Your task to perform on an android device: open app "Firefox Browser" Image 0: 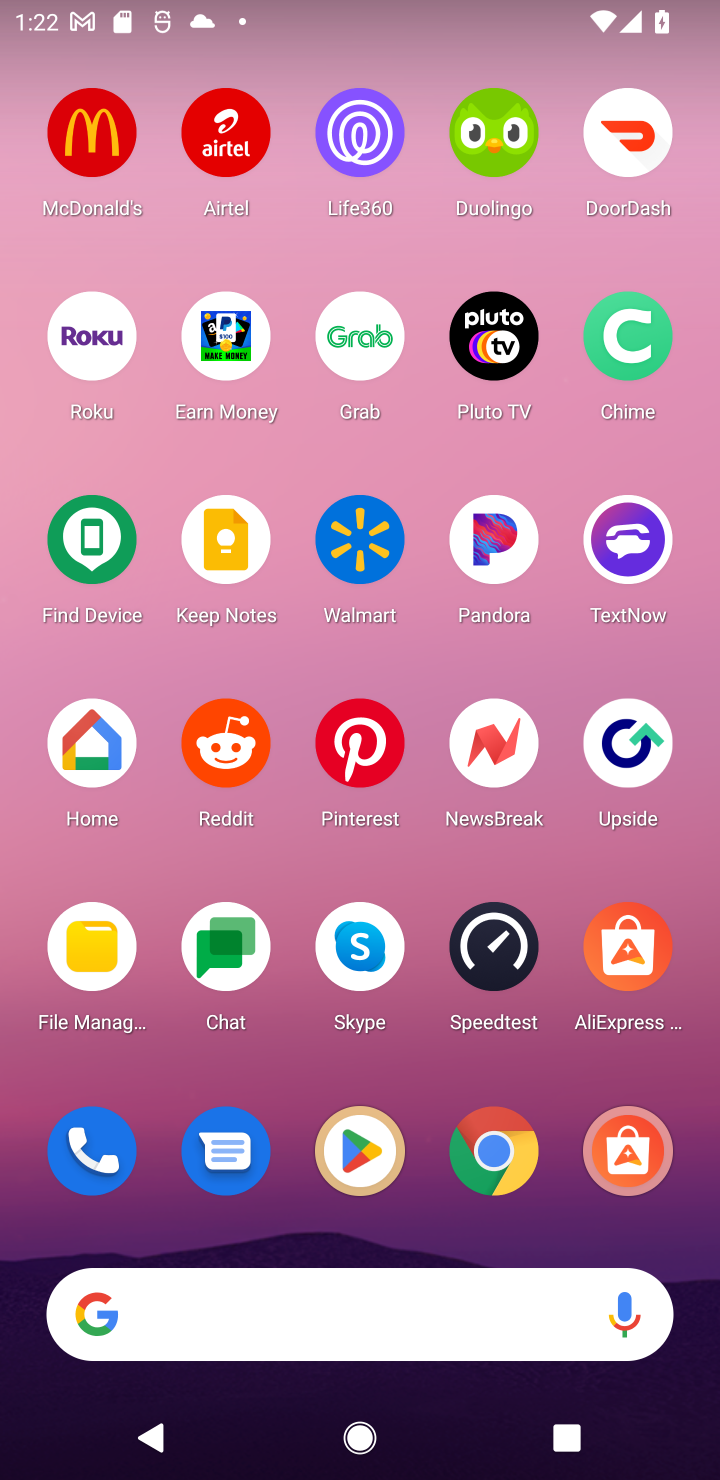
Step 0: click (354, 1162)
Your task to perform on an android device: open app "Firefox Browser" Image 1: 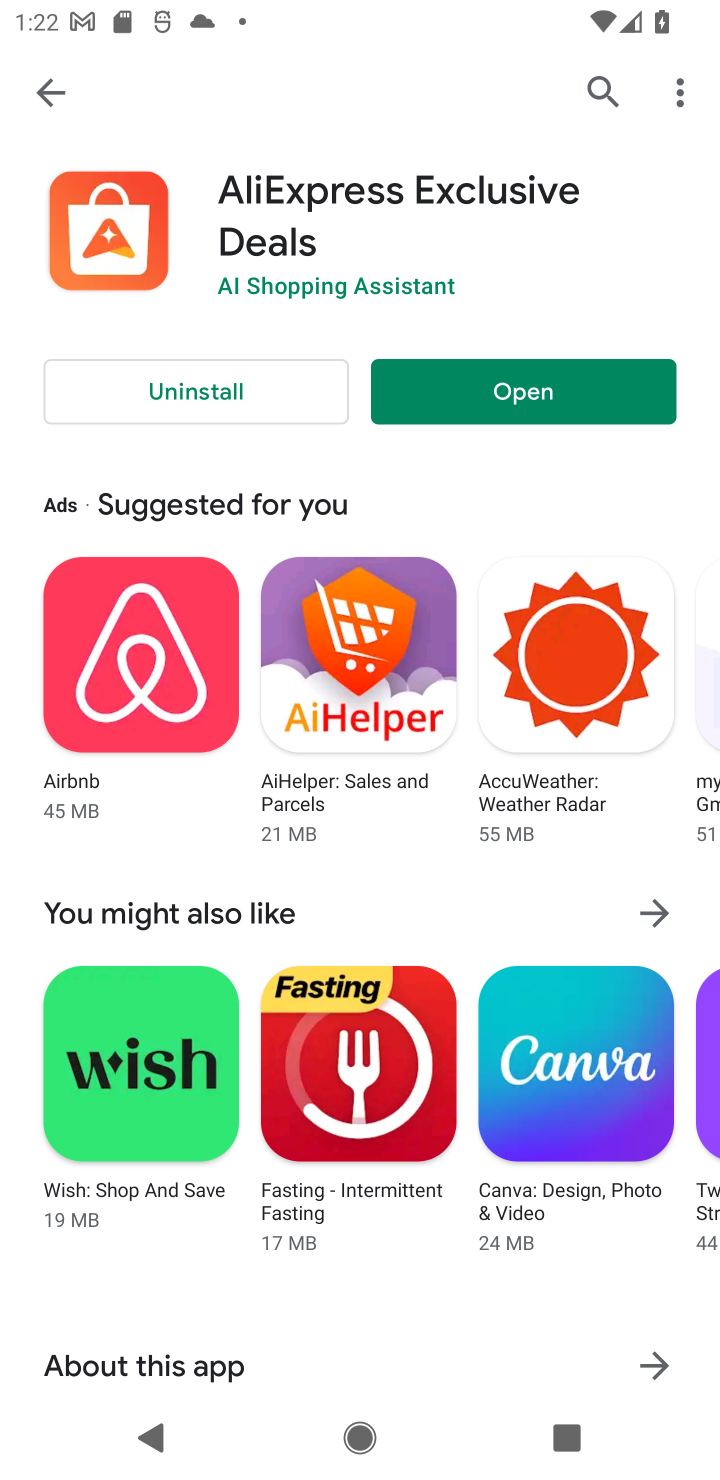
Step 1: press home button
Your task to perform on an android device: open app "Firefox Browser" Image 2: 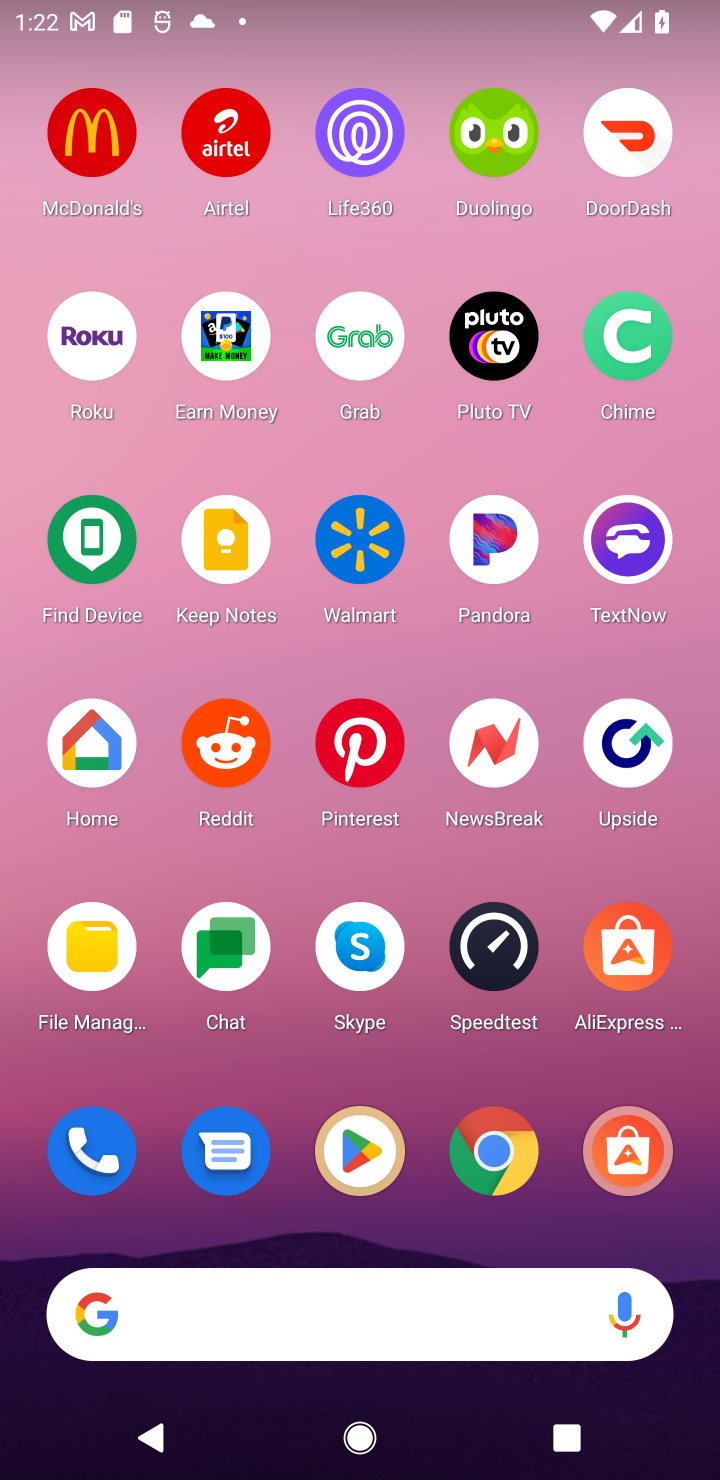
Step 2: click (352, 1160)
Your task to perform on an android device: open app "Firefox Browser" Image 3: 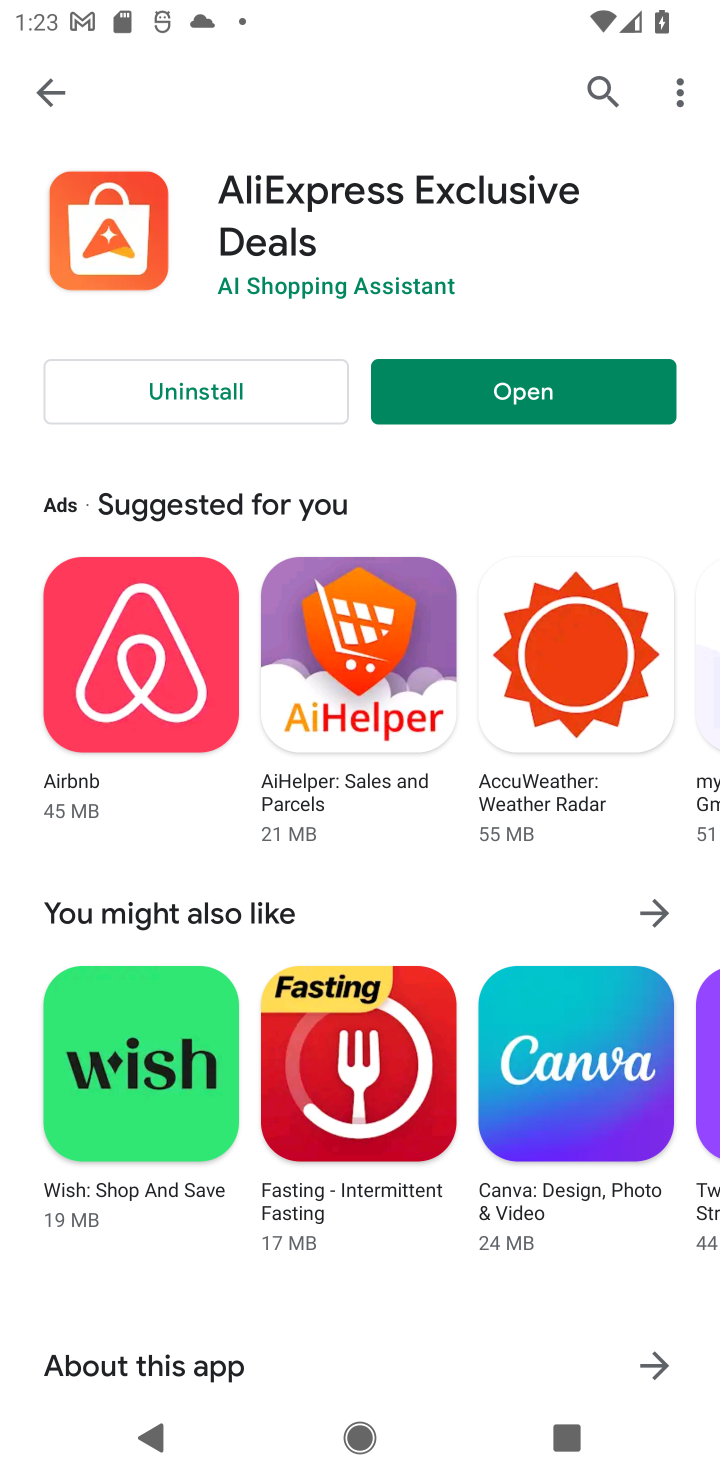
Step 3: click (49, 91)
Your task to perform on an android device: open app "Firefox Browser" Image 4: 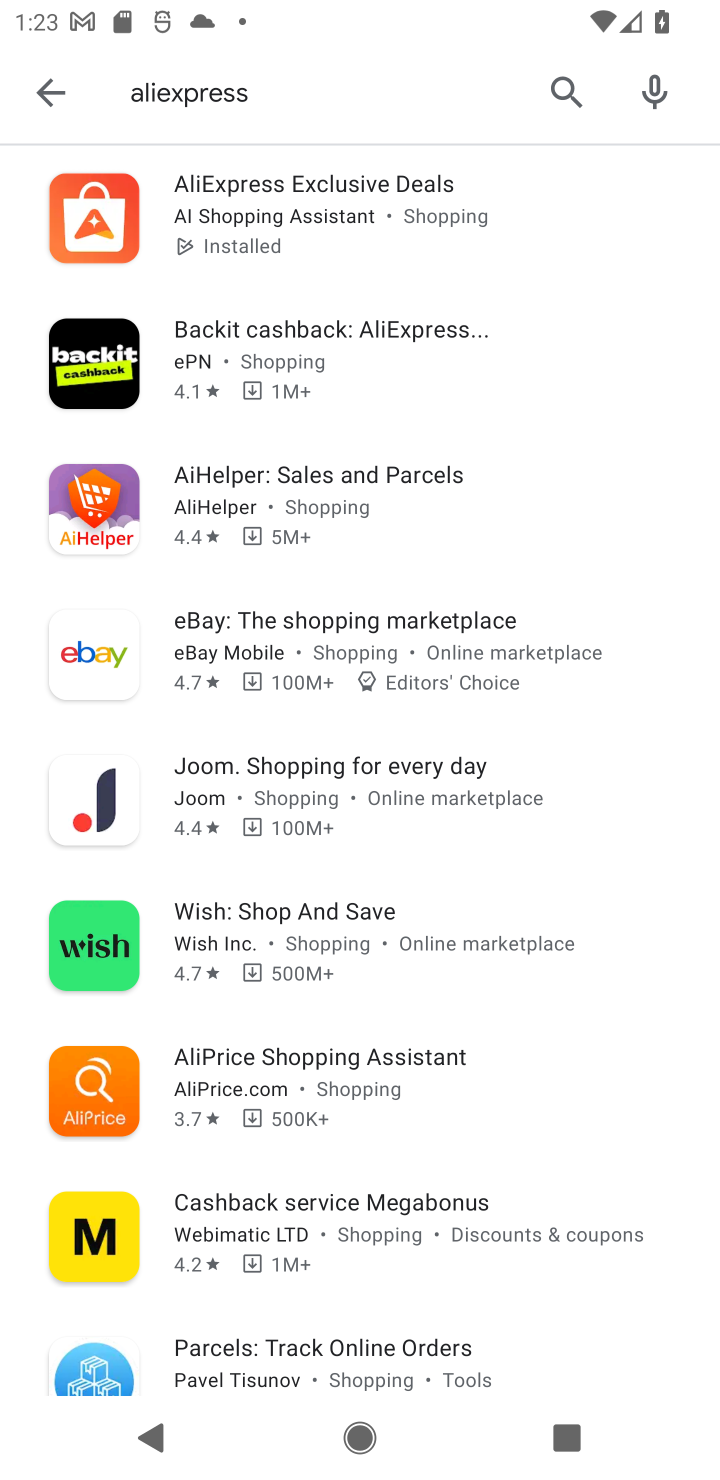
Step 4: click (34, 104)
Your task to perform on an android device: open app "Firefox Browser" Image 5: 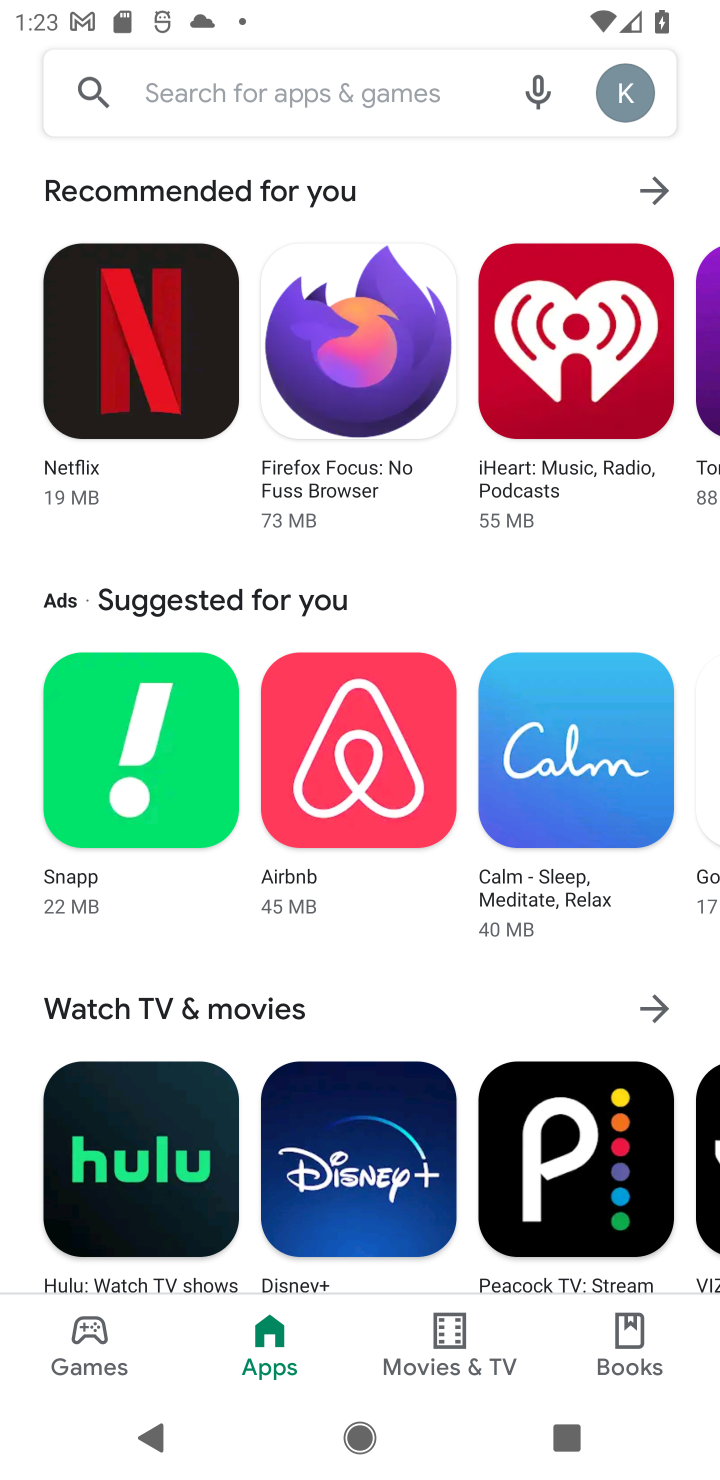
Step 5: click (301, 118)
Your task to perform on an android device: open app "Firefox Browser" Image 6: 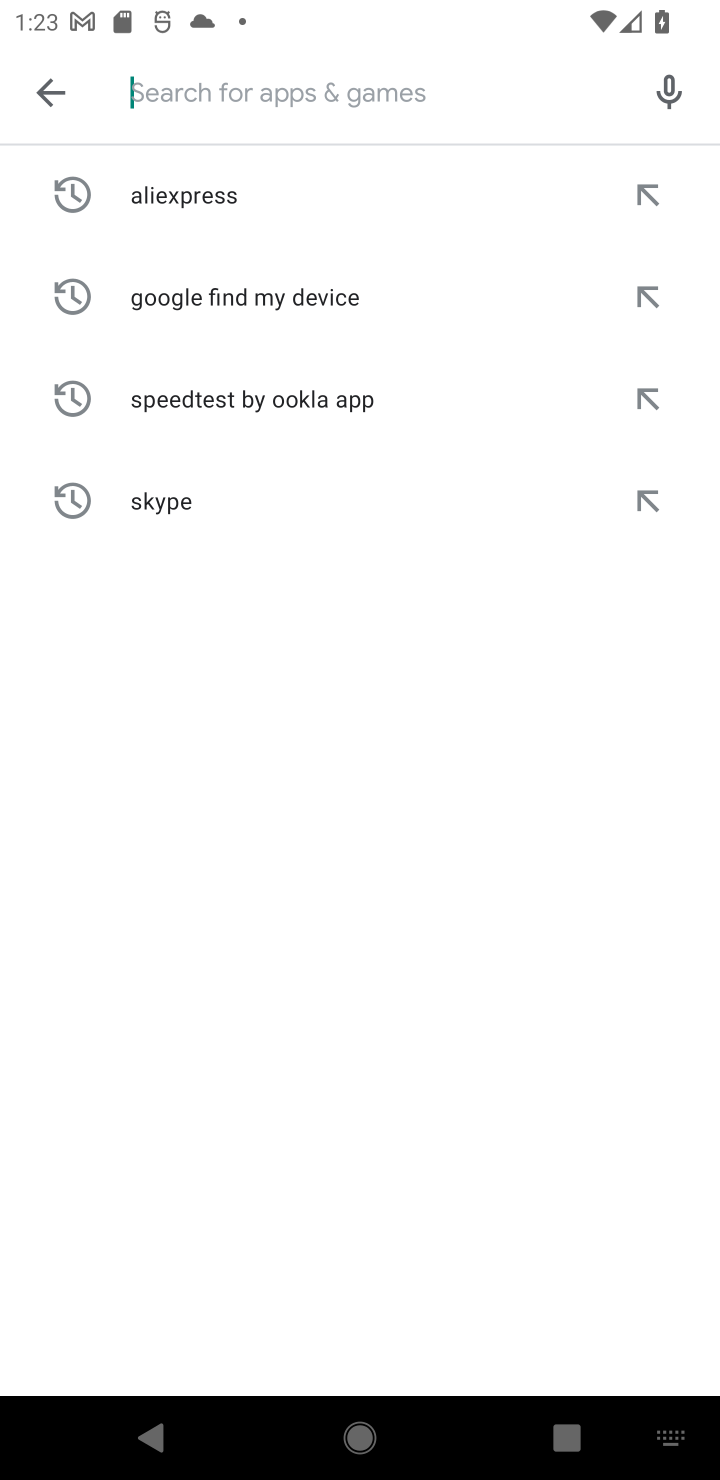
Step 6: type "Firefox Browser"
Your task to perform on an android device: open app "Firefox Browser" Image 7: 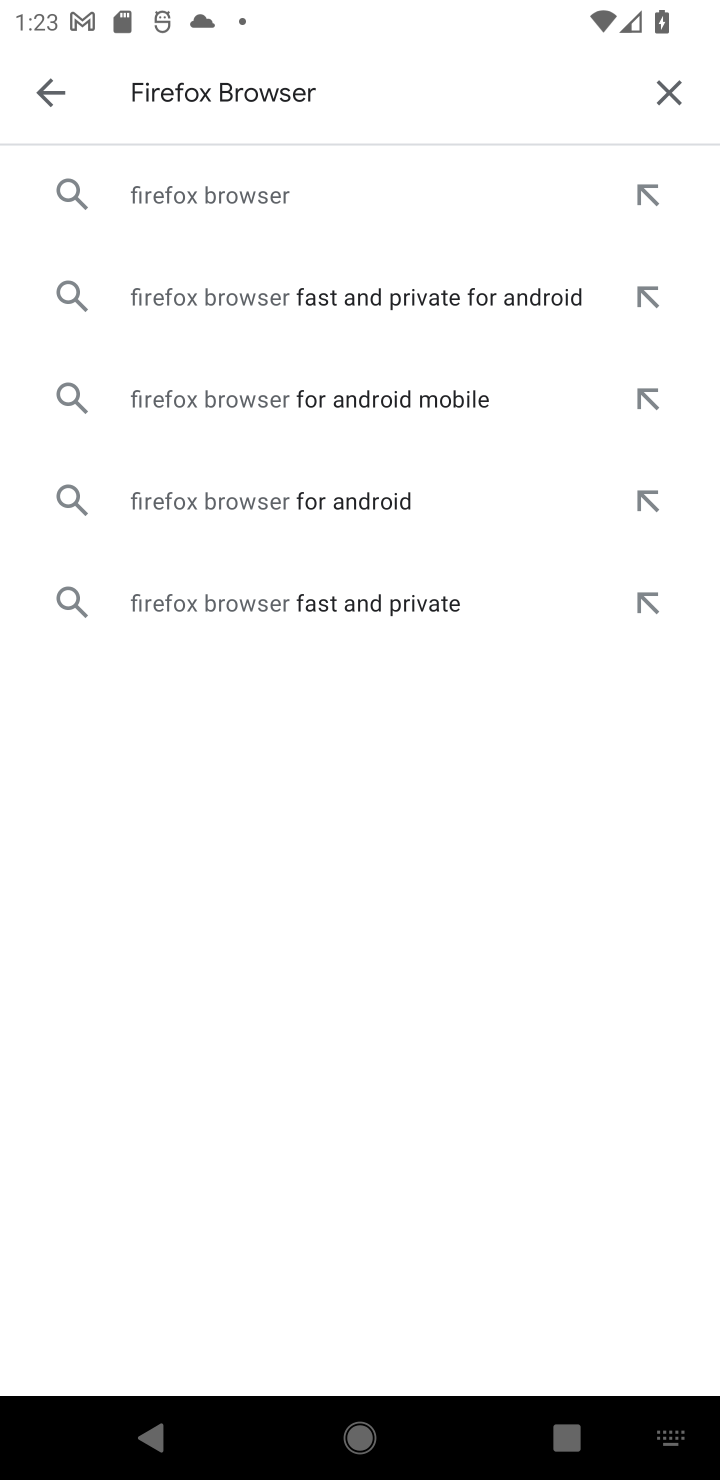
Step 7: click (251, 197)
Your task to perform on an android device: open app "Firefox Browser" Image 8: 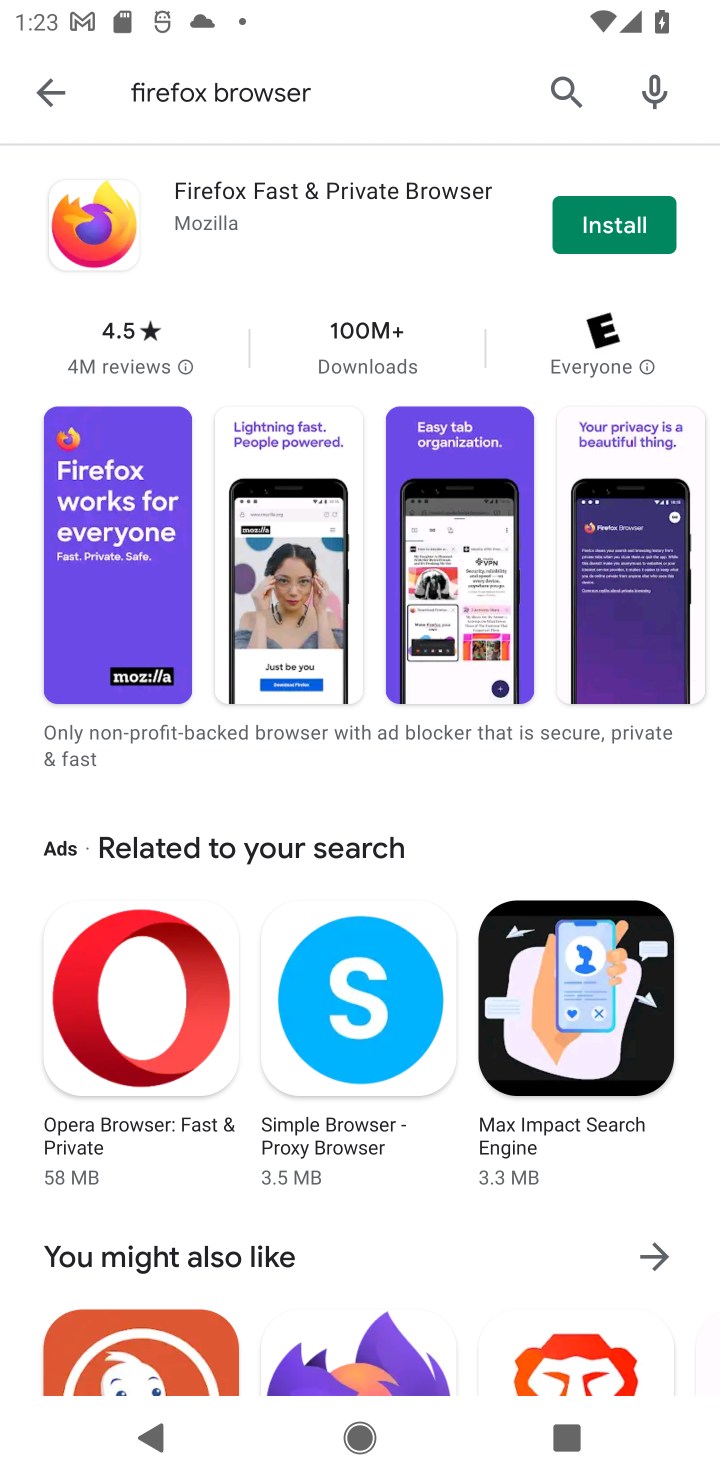
Step 8: click (620, 214)
Your task to perform on an android device: open app "Firefox Browser" Image 9: 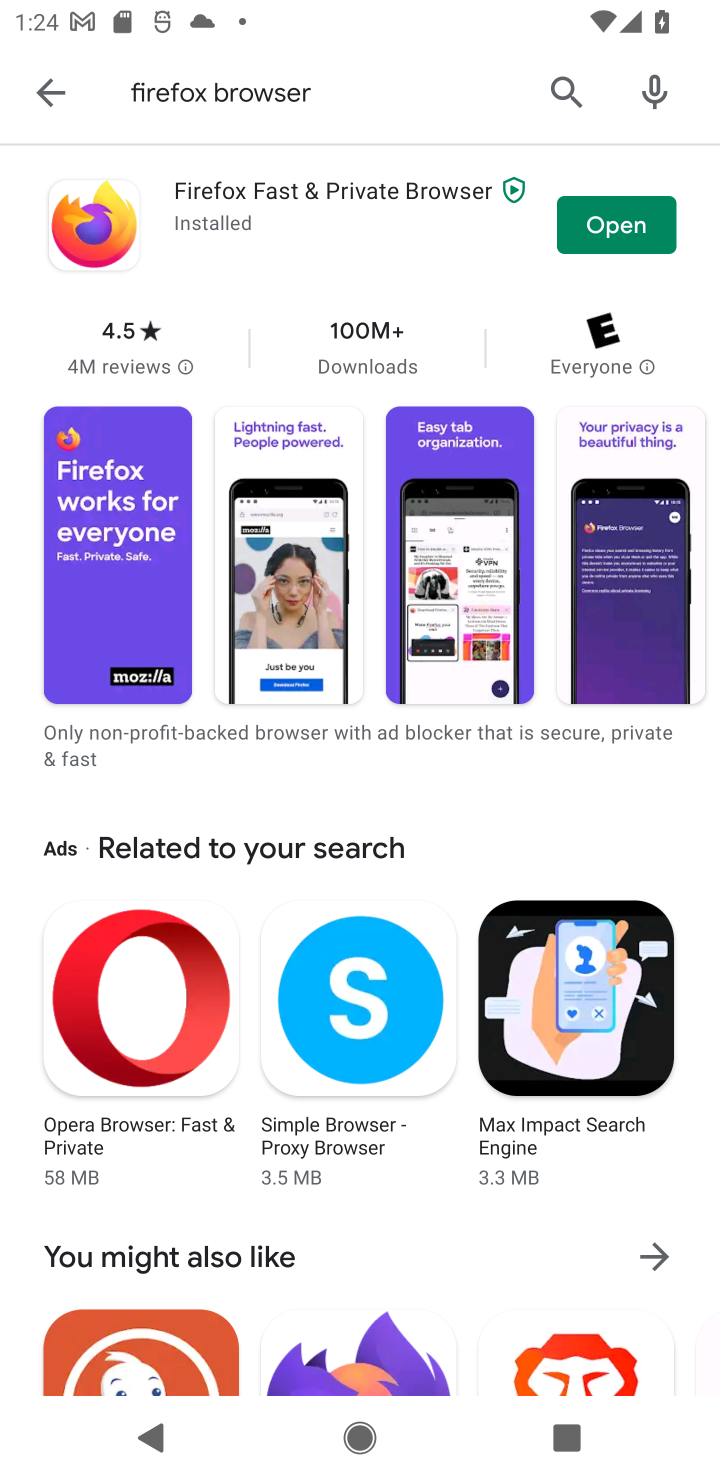
Step 9: click (633, 226)
Your task to perform on an android device: open app "Firefox Browser" Image 10: 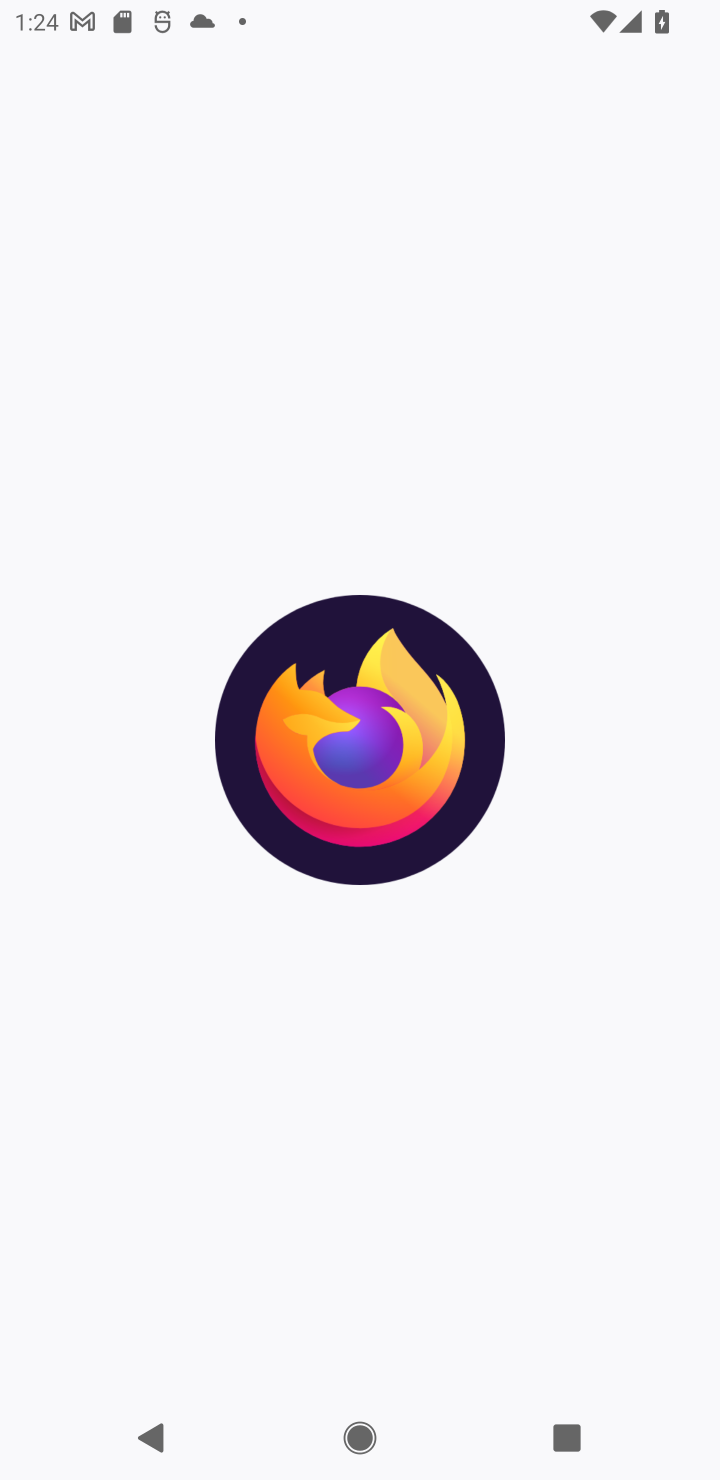
Step 10: task complete